Your task to perform on an android device: Open Android settings Image 0: 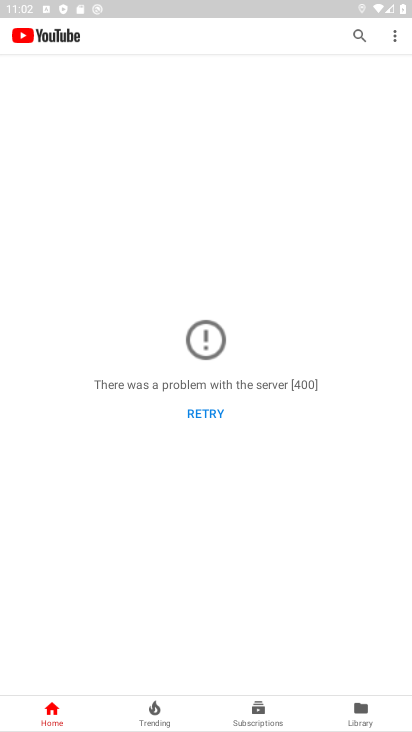
Step 0: press home button
Your task to perform on an android device: Open Android settings Image 1: 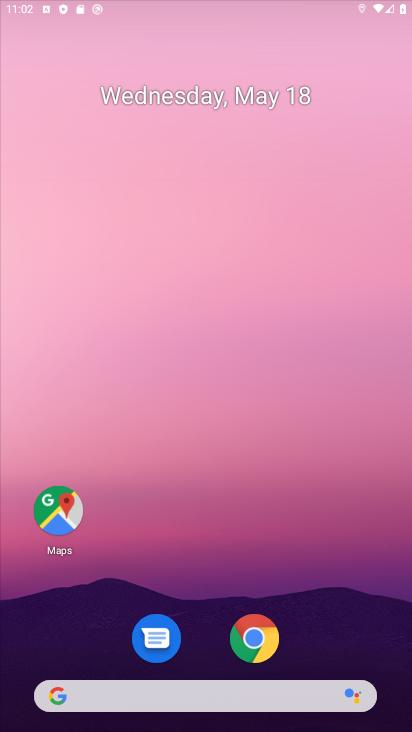
Step 1: drag from (371, 633) to (310, 127)
Your task to perform on an android device: Open Android settings Image 2: 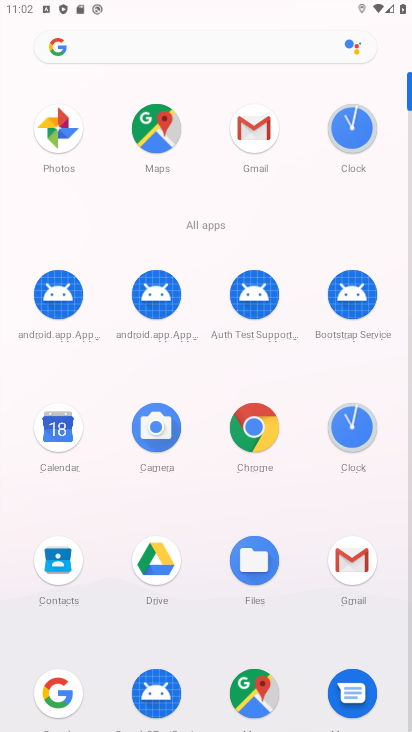
Step 2: drag from (226, 636) to (209, 137)
Your task to perform on an android device: Open Android settings Image 3: 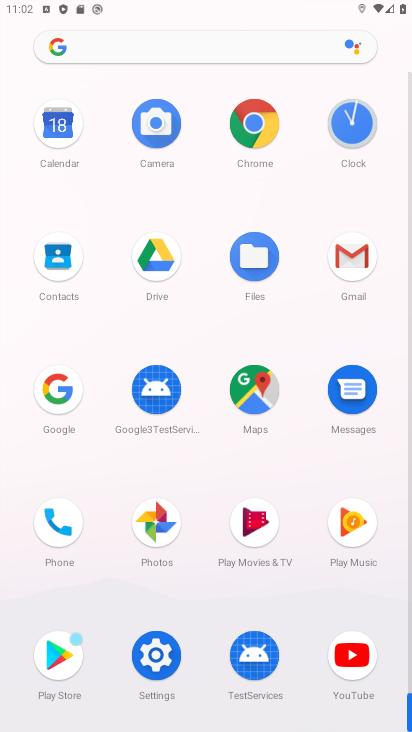
Step 3: click (153, 643)
Your task to perform on an android device: Open Android settings Image 4: 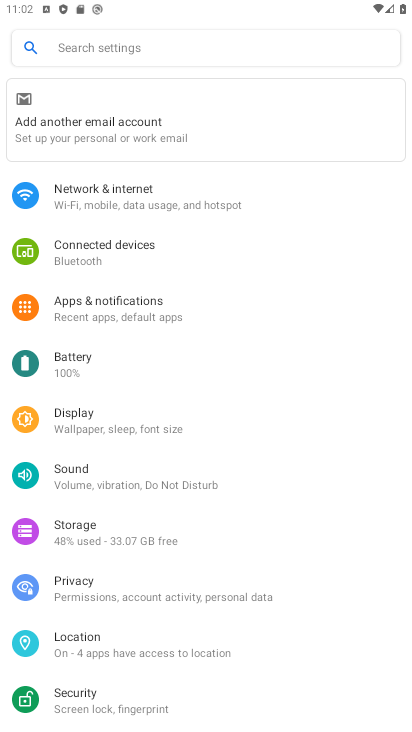
Step 4: drag from (159, 705) to (236, 153)
Your task to perform on an android device: Open Android settings Image 5: 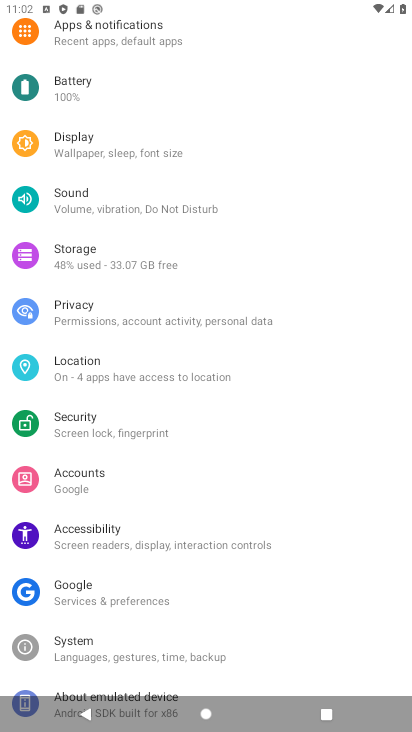
Step 5: drag from (170, 668) to (183, 133)
Your task to perform on an android device: Open Android settings Image 6: 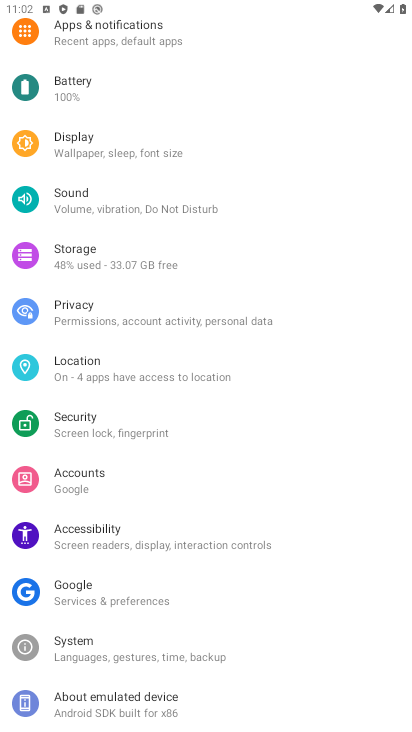
Step 6: click (222, 710)
Your task to perform on an android device: Open Android settings Image 7: 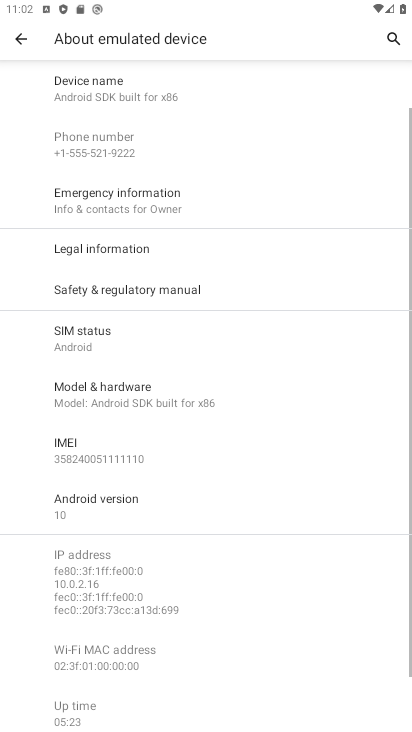
Step 7: click (154, 507)
Your task to perform on an android device: Open Android settings Image 8: 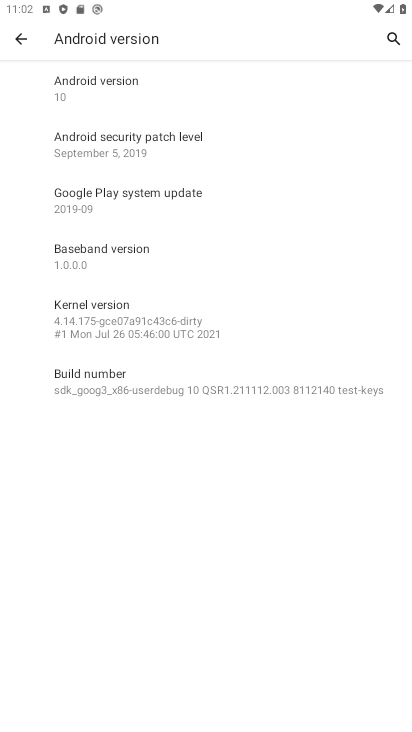
Step 8: task complete